Your task to perform on an android device: change keyboard looks Image 0: 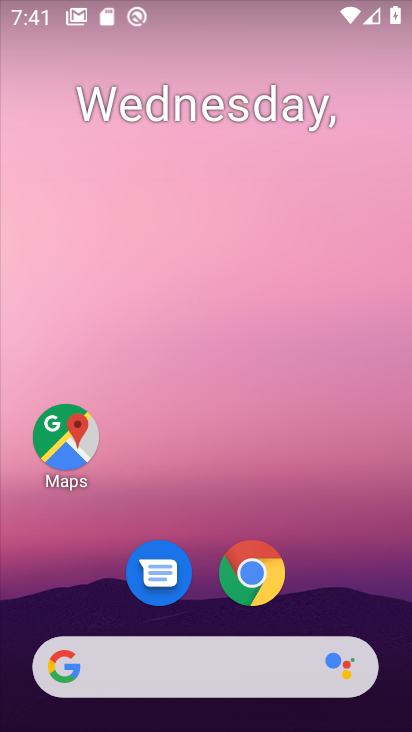
Step 0: drag from (322, 612) to (316, 16)
Your task to perform on an android device: change keyboard looks Image 1: 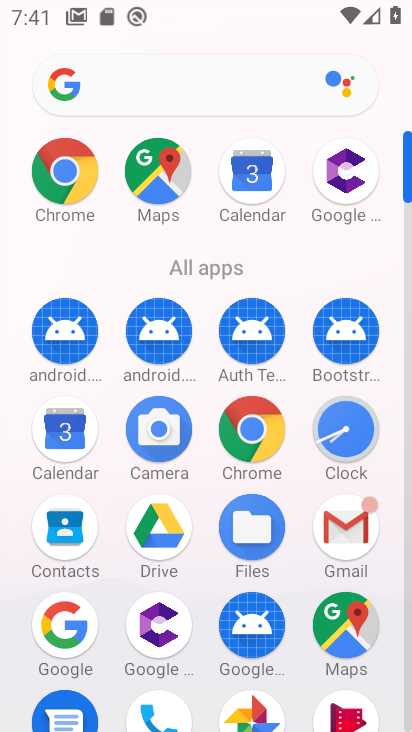
Step 1: drag from (406, 577) to (410, 534)
Your task to perform on an android device: change keyboard looks Image 2: 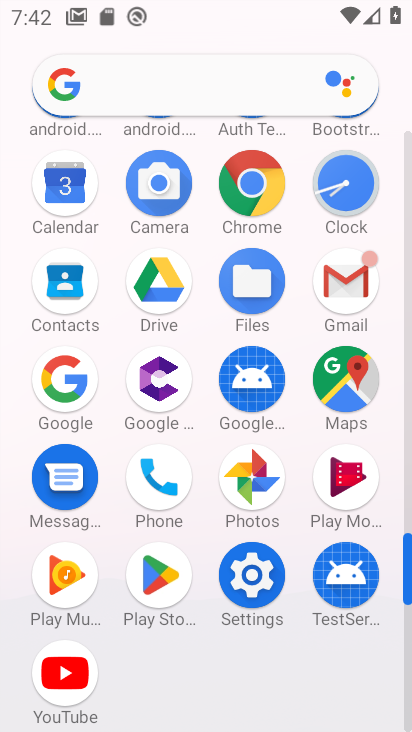
Step 2: click (255, 585)
Your task to perform on an android device: change keyboard looks Image 3: 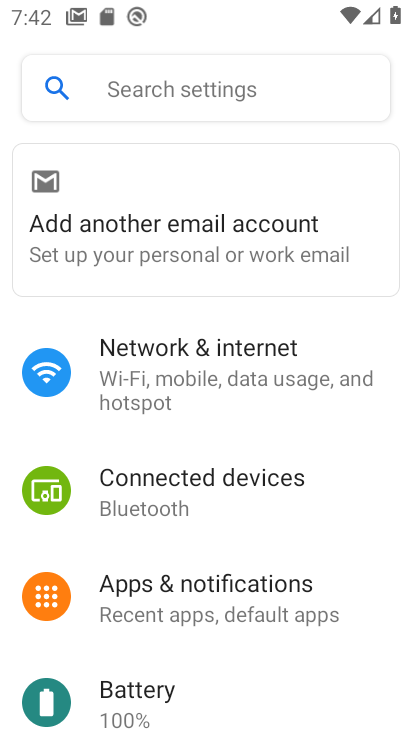
Step 3: drag from (383, 670) to (379, 216)
Your task to perform on an android device: change keyboard looks Image 4: 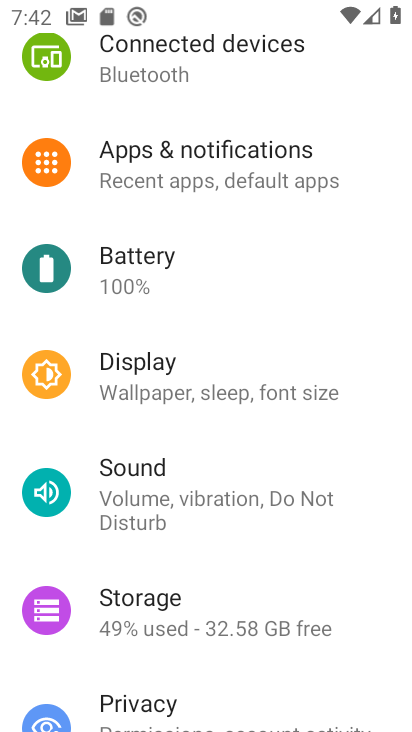
Step 4: drag from (373, 682) to (361, 179)
Your task to perform on an android device: change keyboard looks Image 5: 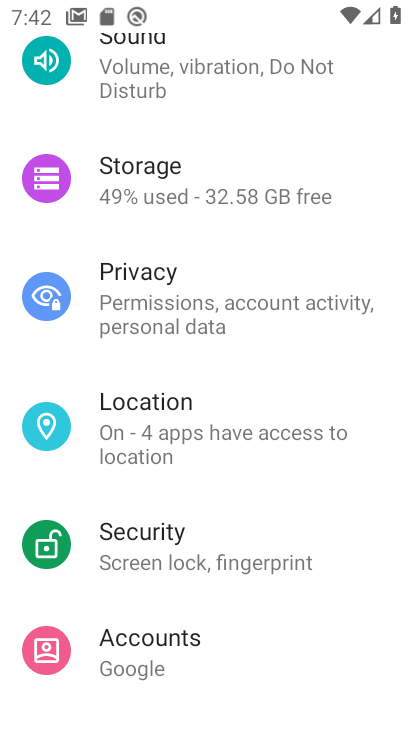
Step 5: drag from (385, 637) to (370, 171)
Your task to perform on an android device: change keyboard looks Image 6: 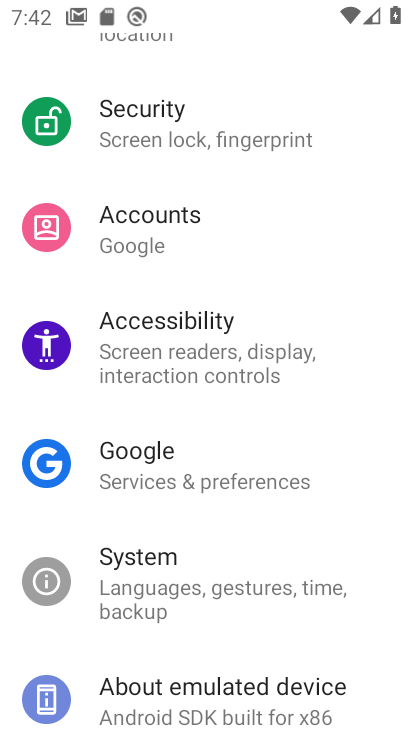
Step 6: drag from (365, 625) to (363, 291)
Your task to perform on an android device: change keyboard looks Image 7: 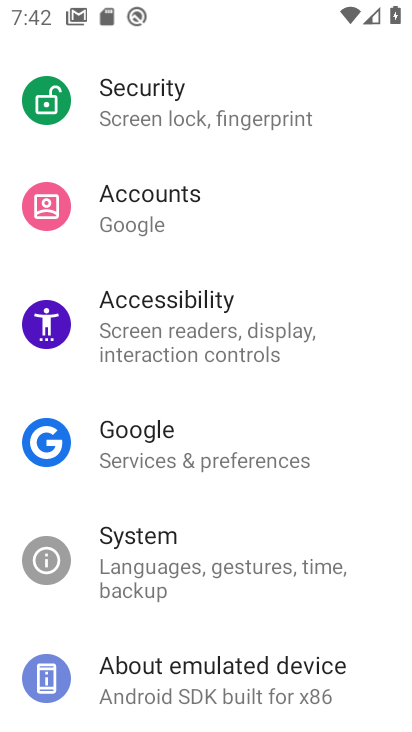
Step 7: click (150, 571)
Your task to perform on an android device: change keyboard looks Image 8: 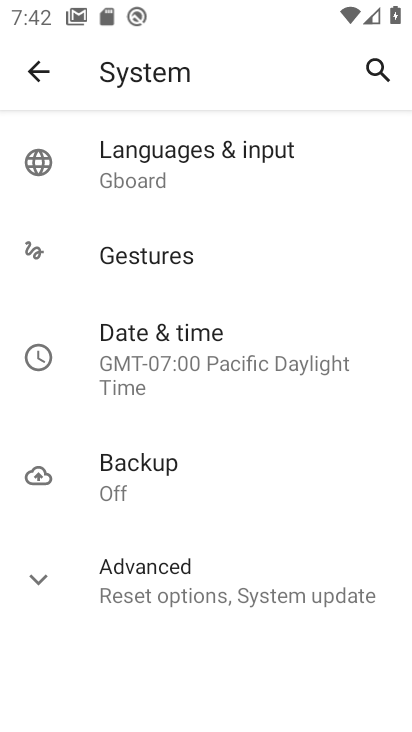
Step 8: click (135, 155)
Your task to perform on an android device: change keyboard looks Image 9: 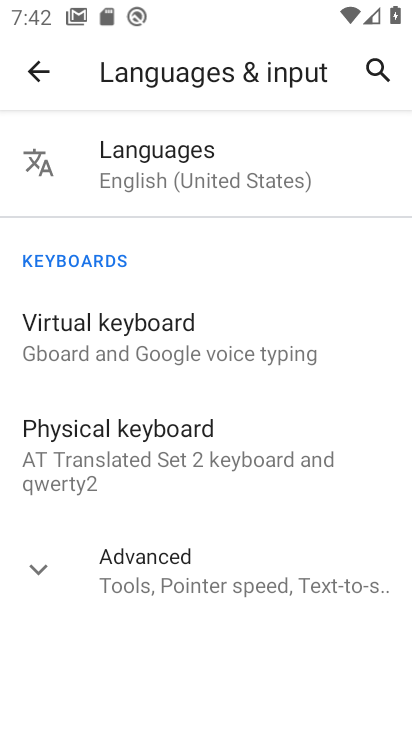
Step 9: click (105, 331)
Your task to perform on an android device: change keyboard looks Image 10: 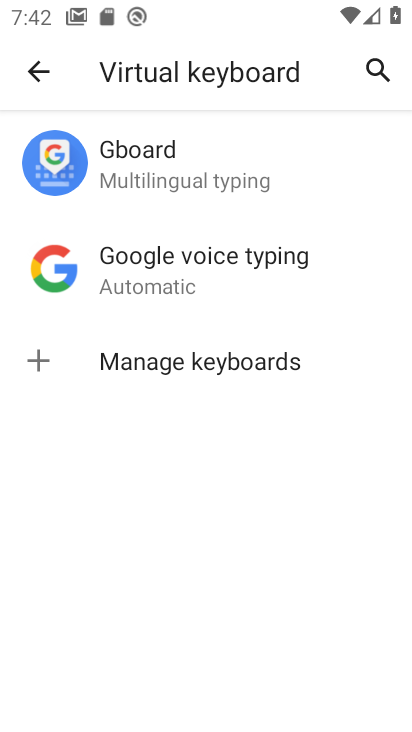
Step 10: click (107, 150)
Your task to perform on an android device: change keyboard looks Image 11: 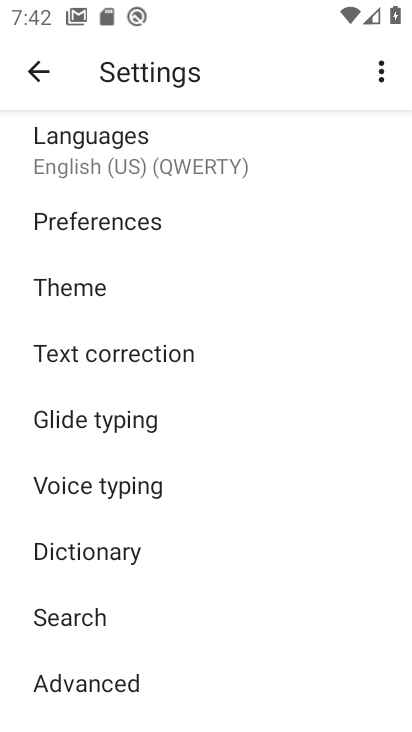
Step 11: click (71, 285)
Your task to perform on an android device: change keyboard looks Image 12: 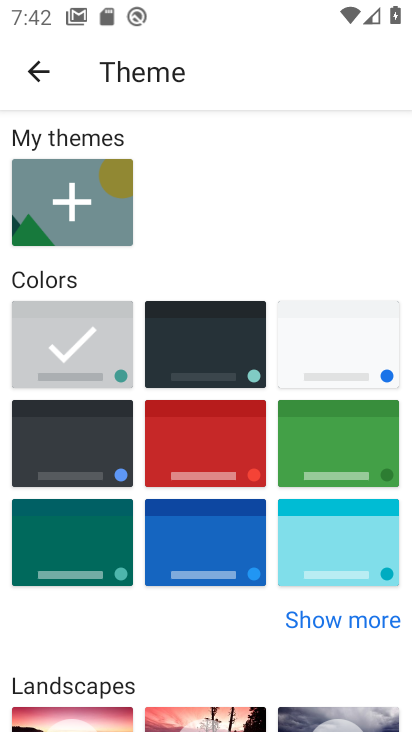
Step 12: click (345, 438)
Your task to perform on an android device: change keyboard looks Image 13: 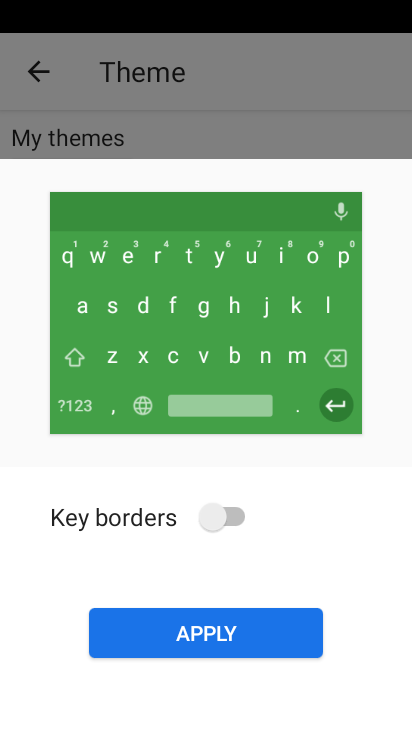
Step 13: click (191, 527)
Your task to perform on an android device: change keyboard looks Image 14: 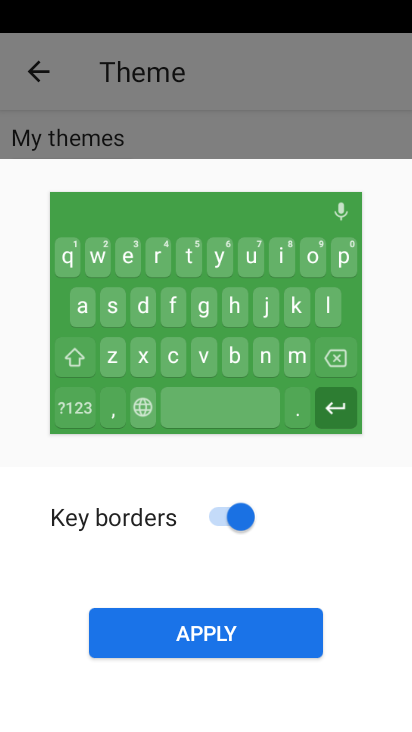
Step 14: click (202, 629)
Your task to perform on an android device: change keyboard looks Image 15: 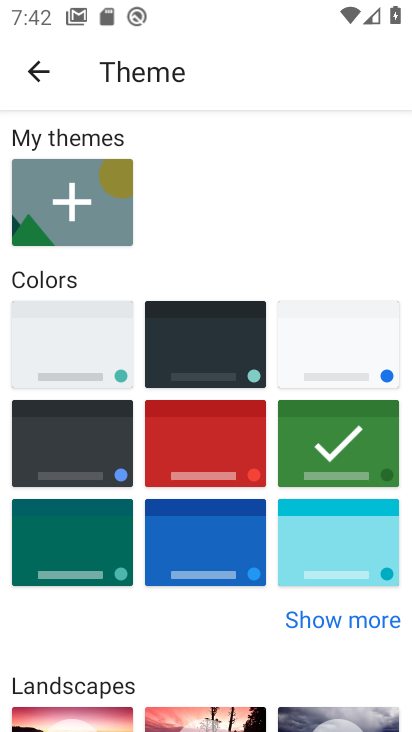
Step 15: task complete